Your task to perform on an android device: Open calendar and show me the third week of next month Image 0: 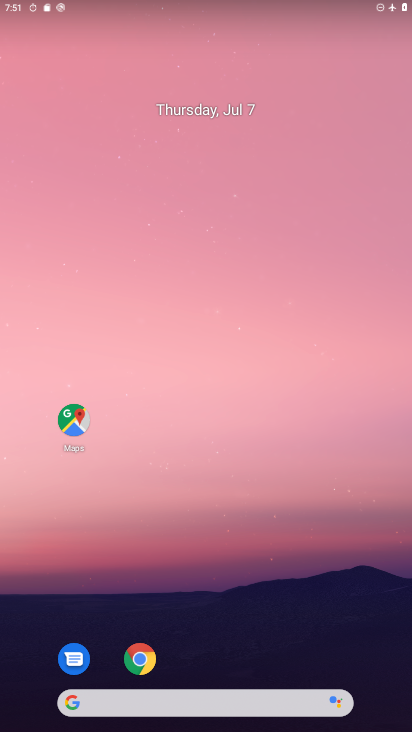
Step 0: drag from (365, 679) to (250, 21)
Your task to perform on an android device: Open calendar and show me the third week of next month Image 1: 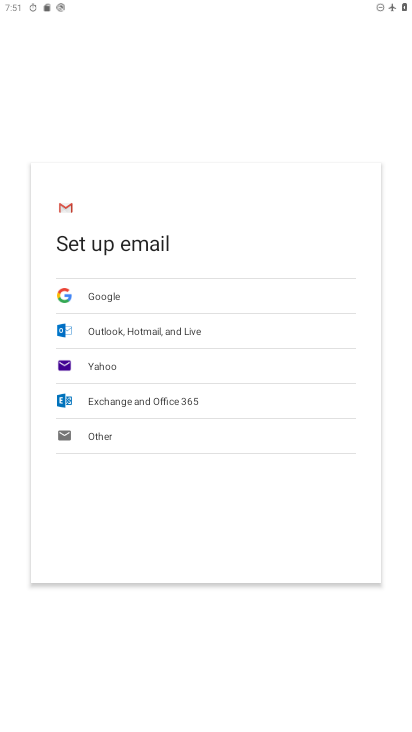
Step 1: press home button
Your task to perform on an android device: Open calendar and show me the third week of next month Image 2: 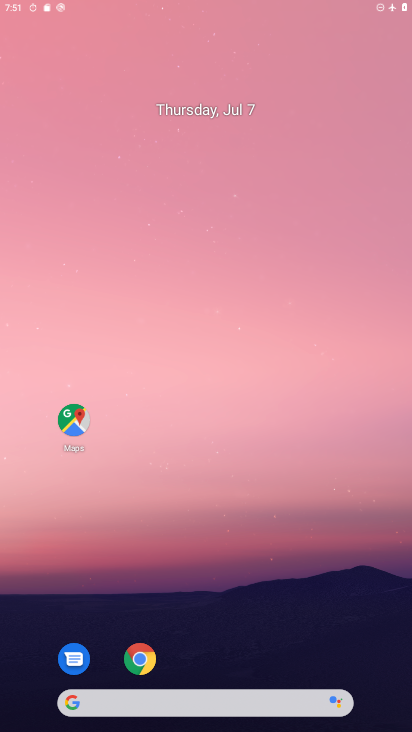
Step 2: drag from (371, 698) to (308, 29)
Your task to perform on an android device: Open calendar and show me the third week of next month Image 3: 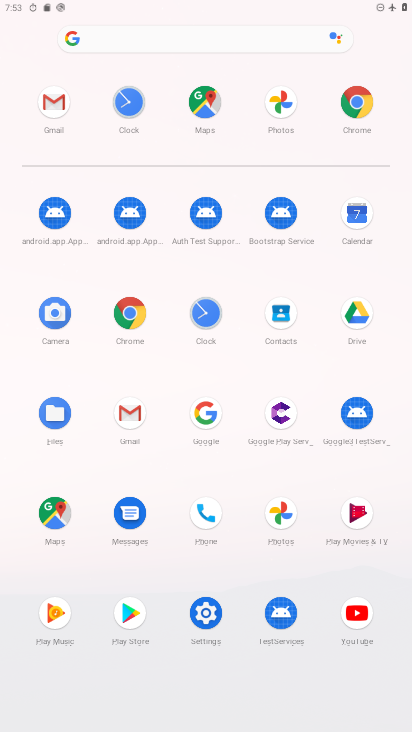
Step 3: click (366, 208)
Your task to perform on an android device: Open calendar and show me the third week of next month Image 4: 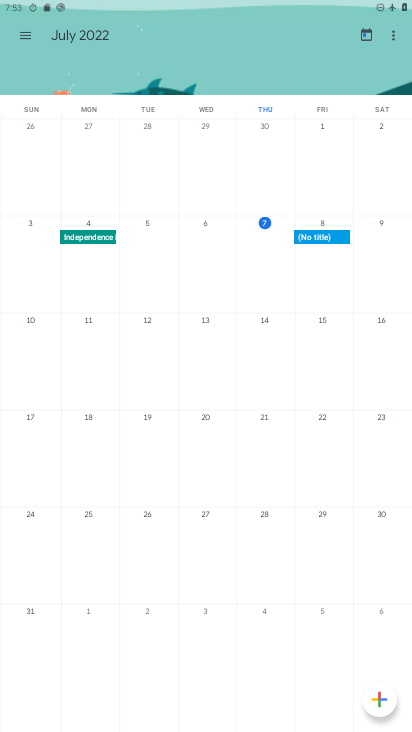
Step 4: drag from (361, 322) to (22, 301)
Your task to perform on an android device: Open calendar and show me the third week of next month Image 5: 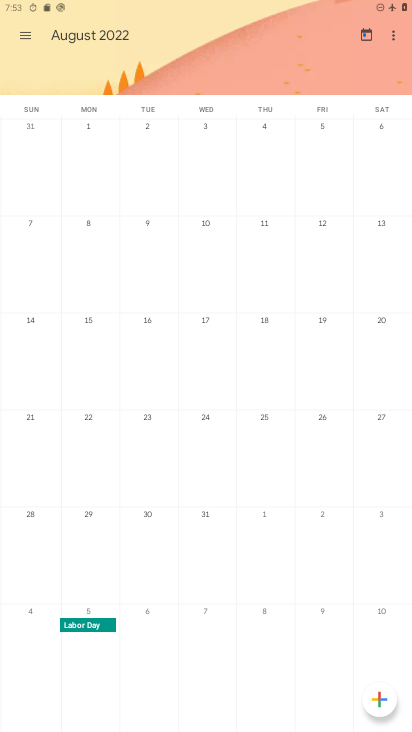
Step 5: click (273, 419)
Your task to perform on an android device: Open calendar and show me the third week of next month Image 6: 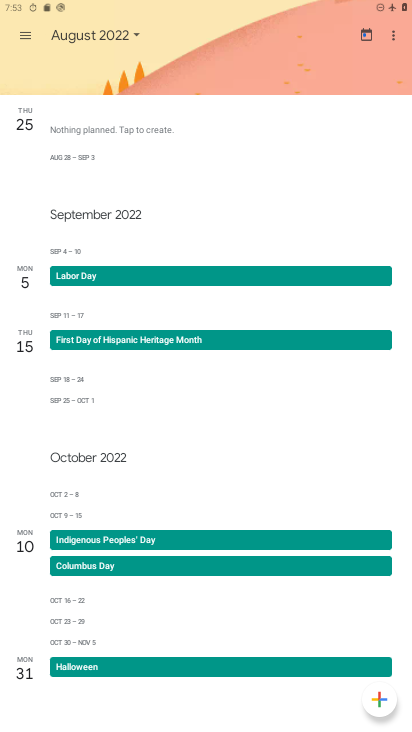
Step 6: task complete